Your task to perform on an android device: Go to sound settings Image 0: 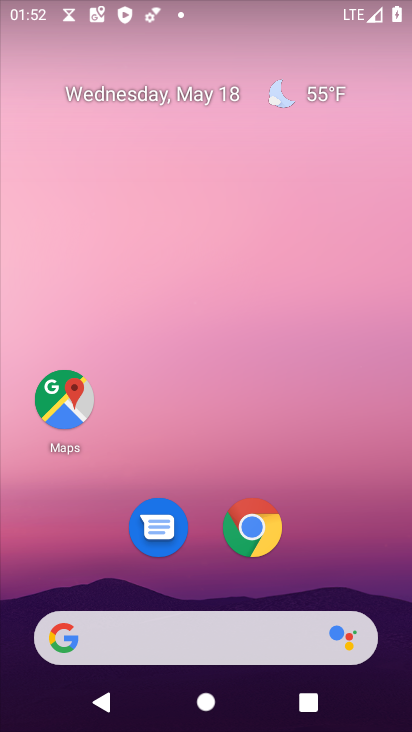
Step 0: drag from (341, 278) to (252, 32)
Your task to perform on an android device: Go to sound settings Image 1: 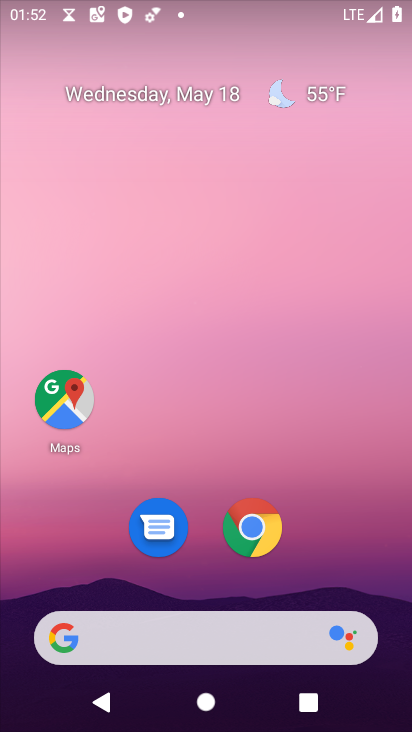
Step 1: drag from (341, 555) to (206, 12)
Your task to perform on an android device: Go to sound settings Image 2: 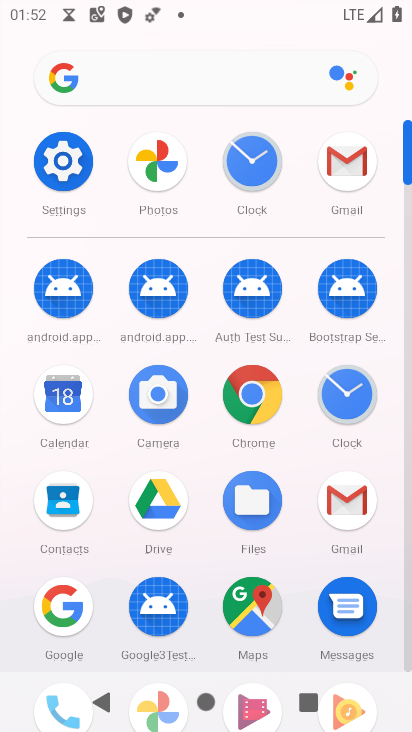
Step 2: click (85, 166)
Your task to perform on an android device: Go to sound settings Image 3: 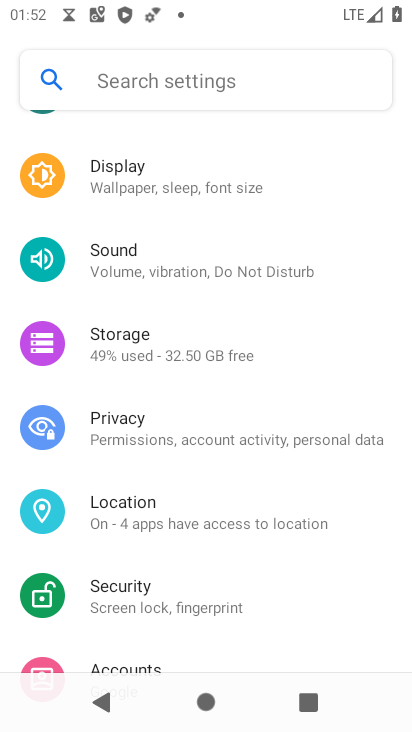
Step 3: click (182, 264)
Your task to perform on an android device: Go to sound settings Image 4: 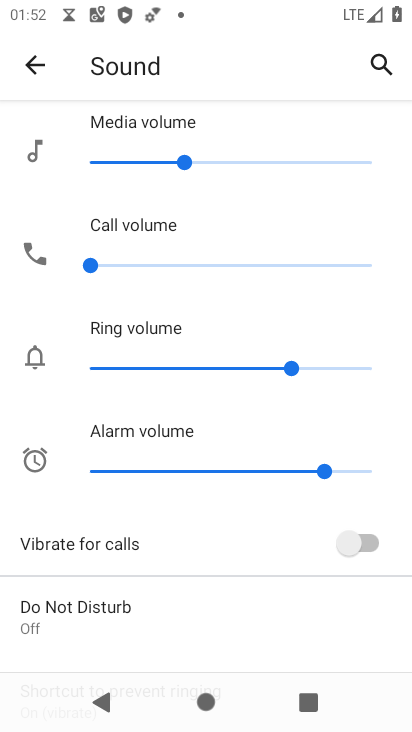
Step 4: task complete